Your task to perform on an android device: Go to privacy settings Image 0: 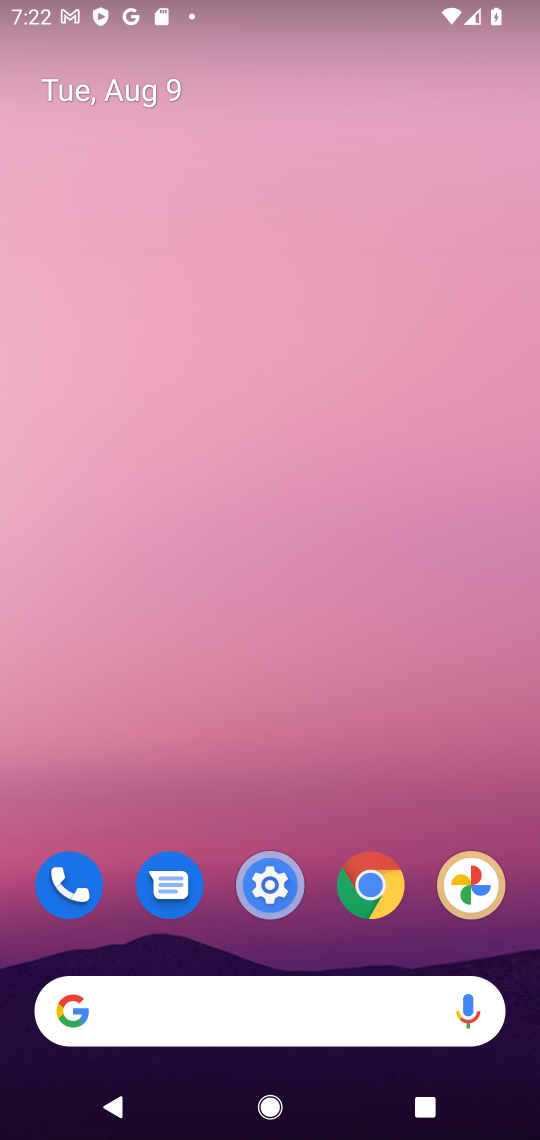
Step 0: click (269, 883)
Your task to perform on an android device: Go to privacy settings Image 1: 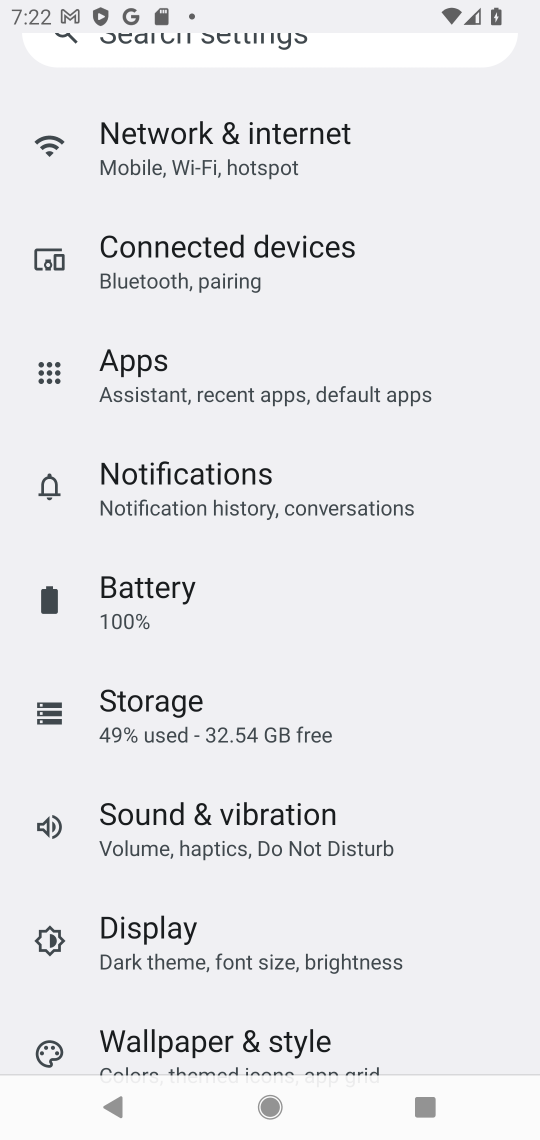
Step 1: task complete